Your task to perform on an android device: Go to Google maps Image 0: 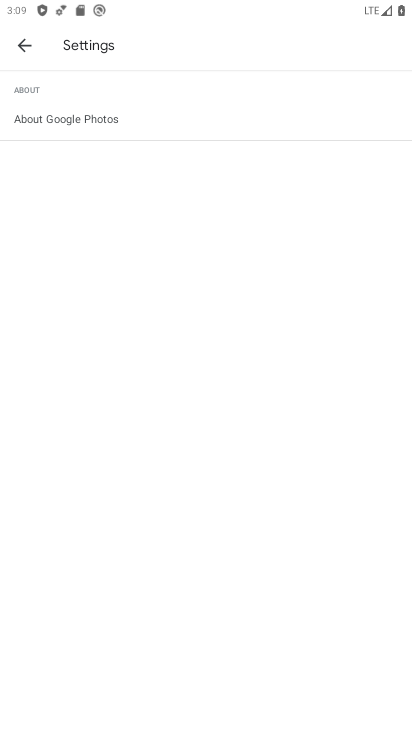
Step 0: press home button
Your task to perform on an android device: Go to Google maps Image 1: 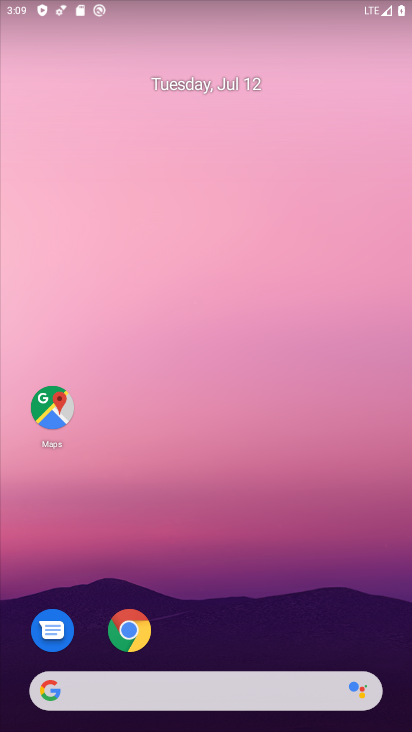
Step 1: click (68, 398)
Your task to perform on an android device: Go to Google maps Image 2: 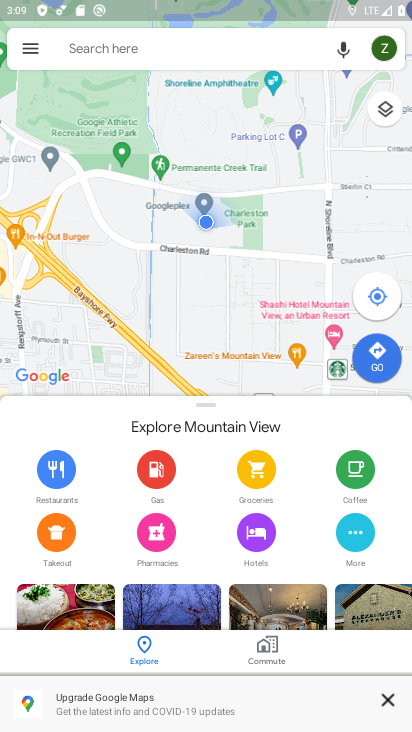
Step 2: task complete